Your task to perform on an android device: toggle javascript in the chrome app Image 0: 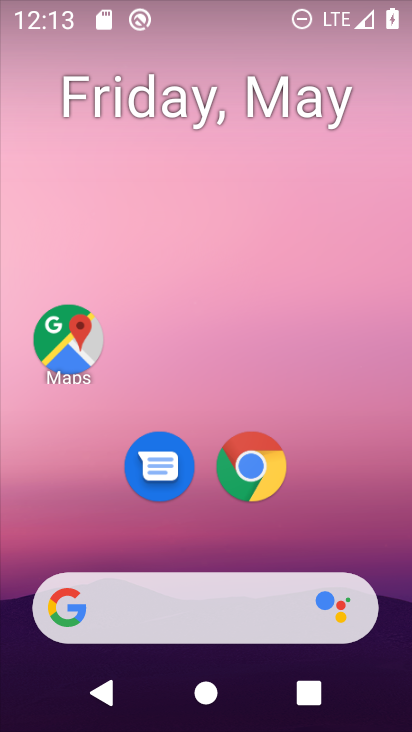
Step 0: drag from (208, 589) to (288, 1)
Your task to perform on an android device: toggle javascript in the chrome app Image 1: 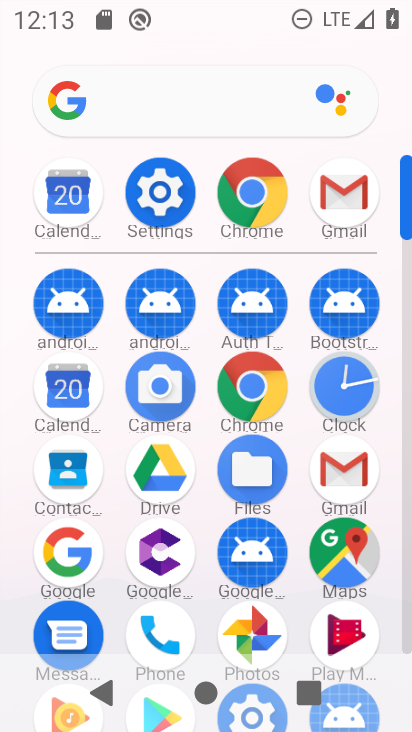
Step 1: click (266, 397)
Your task to perform on an android device: toggle javascript in the chrome app Image 2: 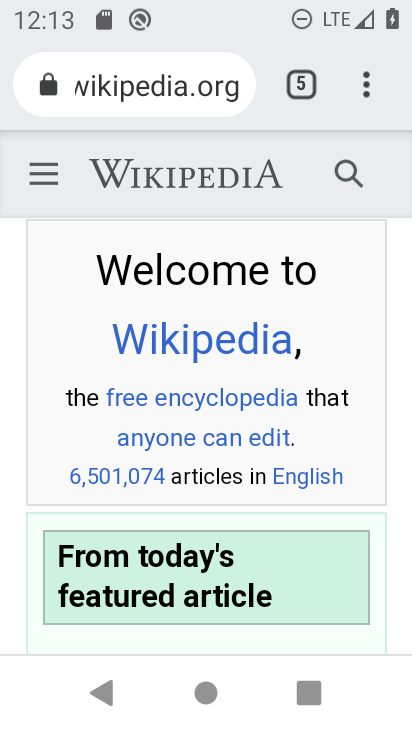
Step 2: click (364, 86)
Your task to perform on an android device: toggle javascript in the chrome app Image 3: 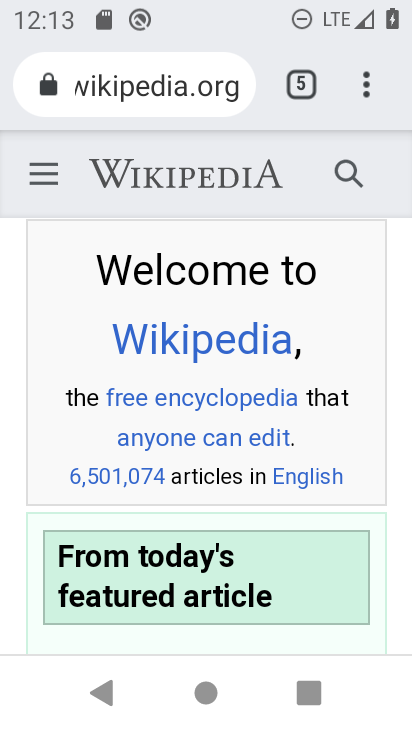
Step 3: drag from (360, 74) to (256, 521)
Your task to perform on an android device: toggle javascript in the chrome app Image 4: 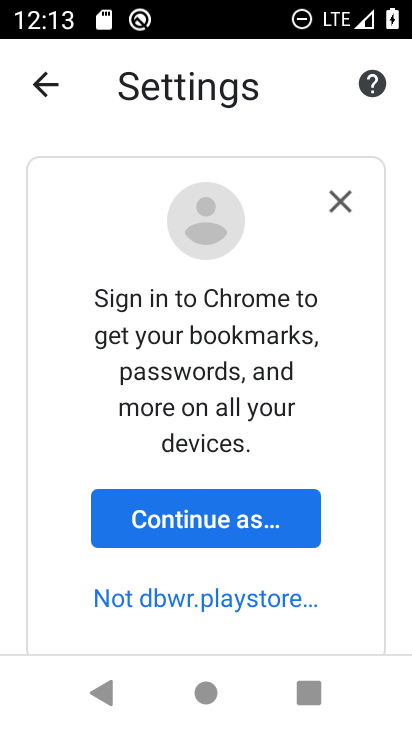
Step 4: drag from (346, 614) to (376, 101)
Your task to perform on an android device: toggle javascript in the chrome app Image 5: 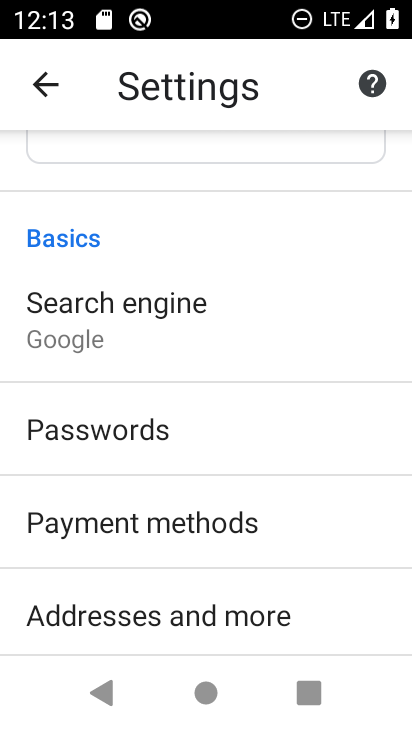
Step 5: drag from (254, 578) to (272, 110)
Your task to perform on an android device: toggle javascript in the chrome app Image 6: 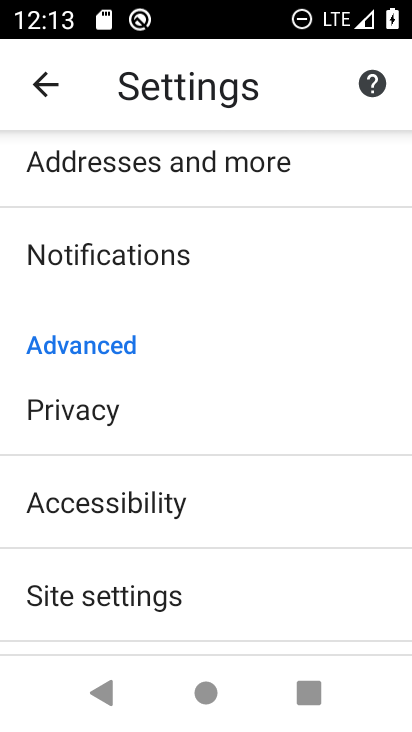
Step 6: click (121, 595)
Your task to perform on an android device: toggle javascript in the chrome app Image 7: 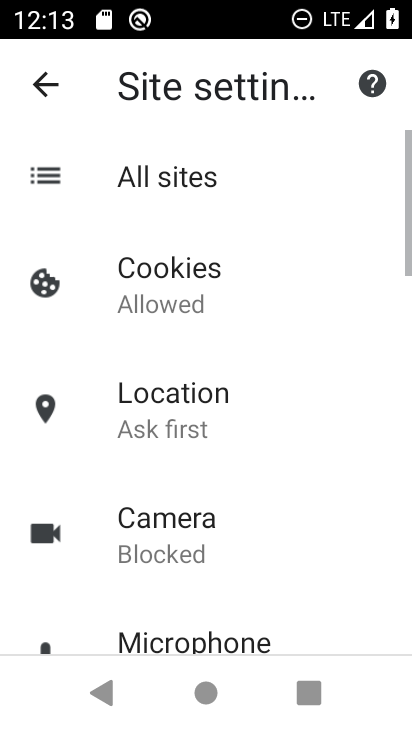
Step 7: drag from (154, 588) to (206, 139)
Your task to perform on an android device: toggle javascript in the chrome app Image 8: 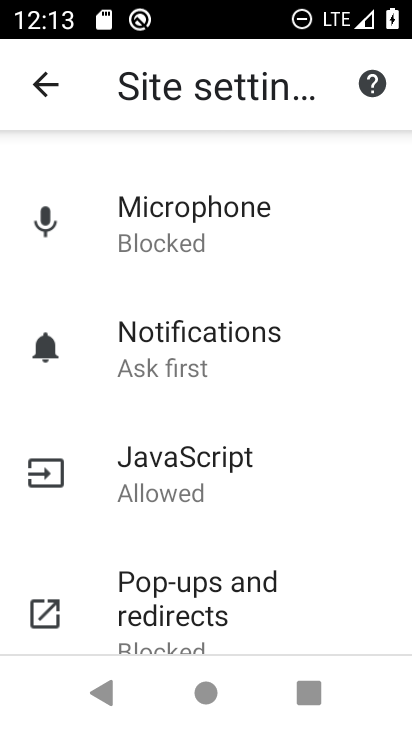
Step 8: click (208, 477)
Your task to perform on an android device: toggle javascript in the chrome app Image 9: 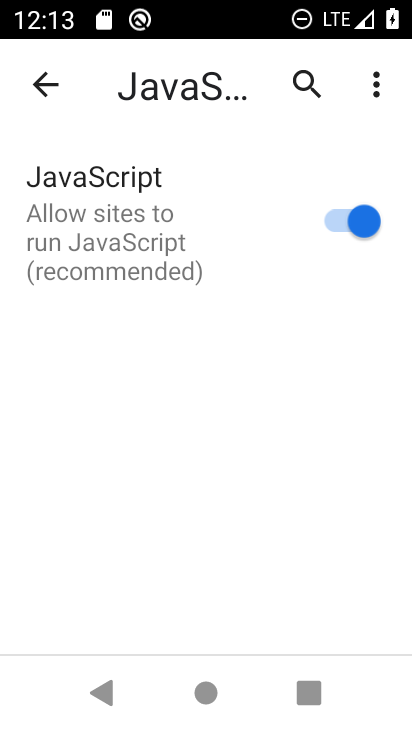
Step 9: click (352, 214)
Your task to perform on an android device: toggle javascript in the chrome app Image 10: 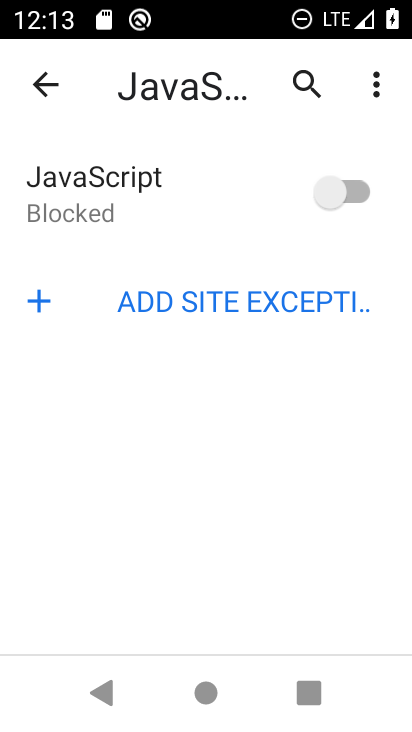
Step 10: task complete